Your task to perform on an android device: turn on improve location accuracy Image 0: 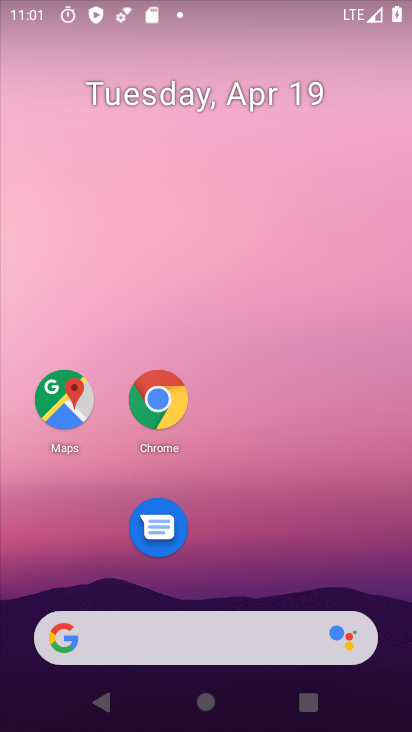
Step 0: click (284, 274)
Your task to perform on an android device: turn on improve location accuracy Image 1: 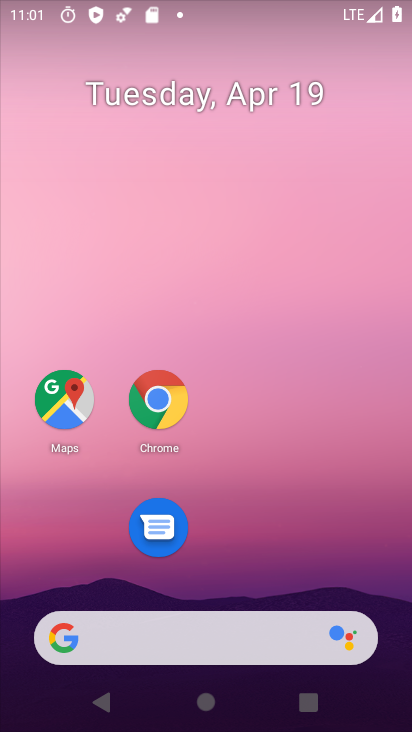
Step 1: drag from (255, 674) to (202, 243)
Your task to perform on an android device: turn on improve location accuracy Image 2: 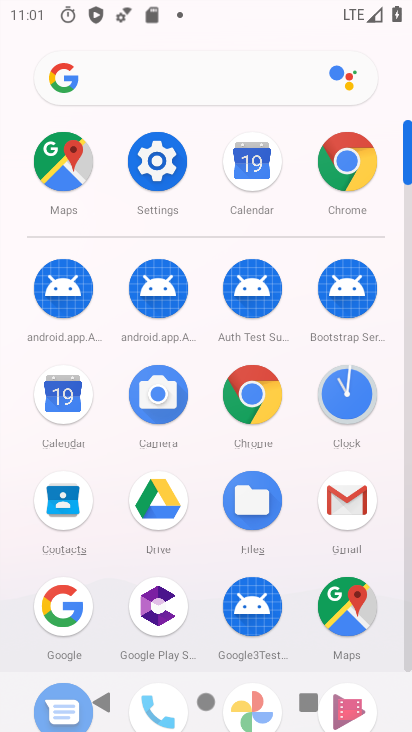
Step 2: click (153, 159)
Your task to perform on an android device: turn on improve location accuracy Image 3: 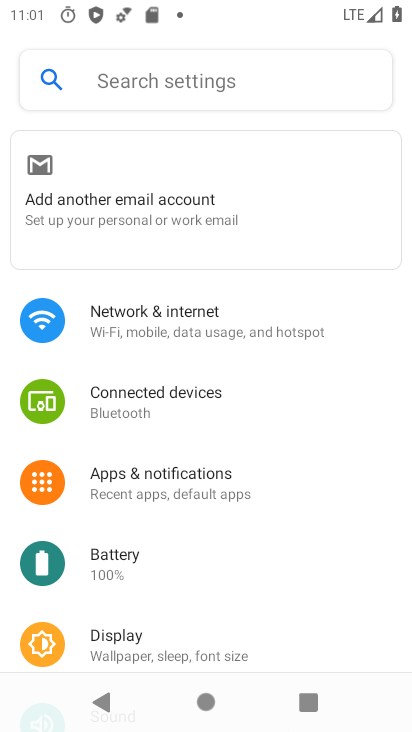
Step 3: click (147, 72)
Your task to perform on an android device: turn on improve location accuracy Image 4: 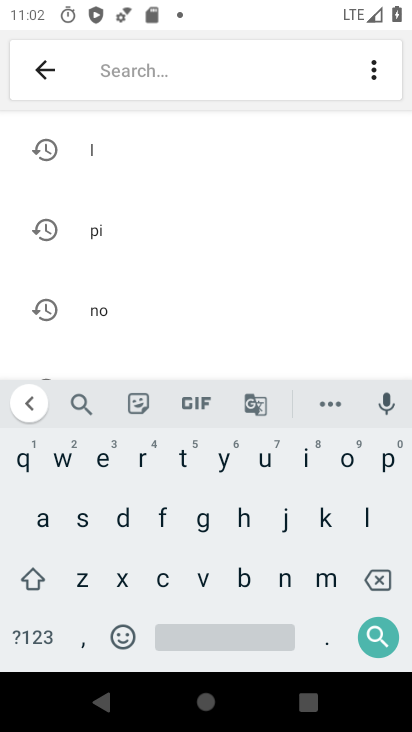
Step 4: click (98, 151)
Your task to perform on an android device: turn on improve location accuracy Image 5: 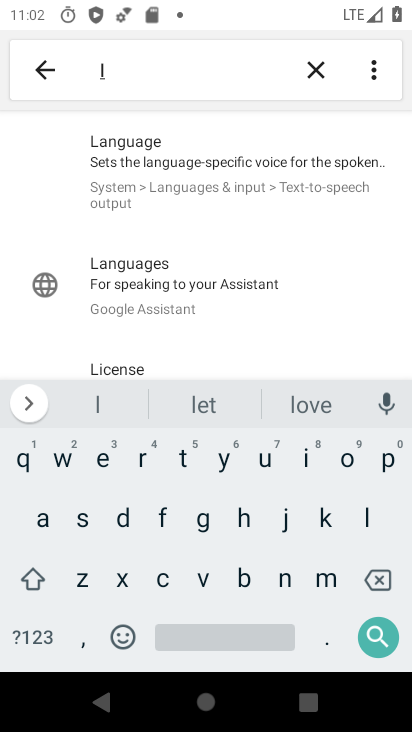
Step 5: drag from (136, 275) to (143, 74)
Your task to perform on an android device: turn on improve location accuracy Image 6: 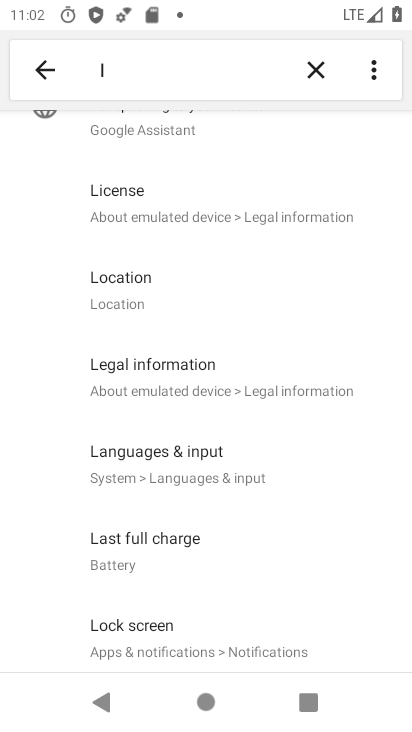
Step 6: click (139, 285)
Your task to perform on an android device: turn on improve location accuracy Image 7: 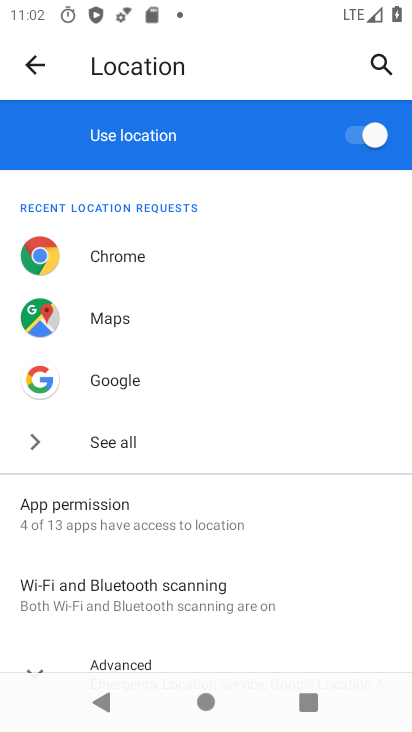
Step 7: drag from (141, 504) to (164, 376)
Your task to perform on an android device: turn on improve location accuracy Image 8: 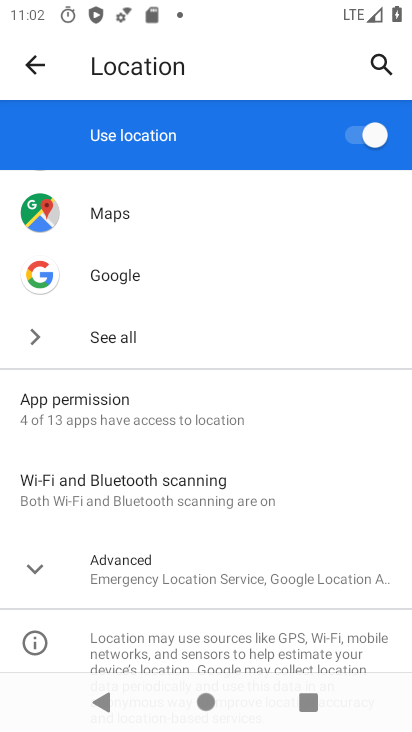
Step 8: click (110, 563)
Your task to perform on an android device: turn on improve location accuracy Image 9: 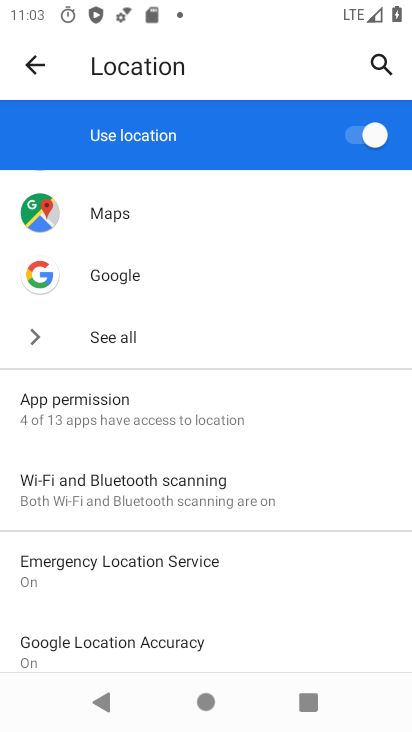
Step 9: click (107, 632)
Your task to perform on an android device: turn on improve location accuracy Image 10: 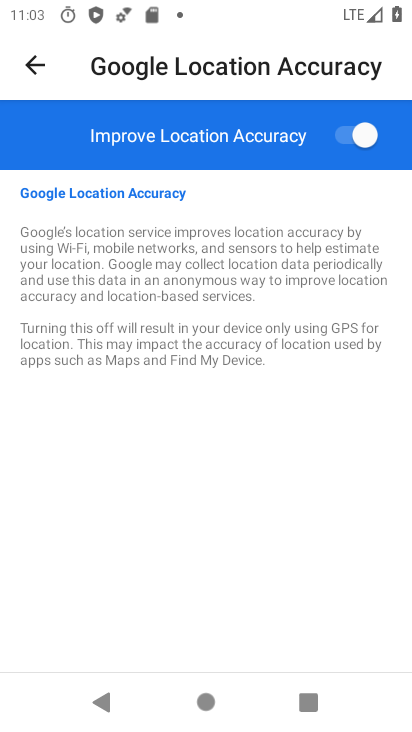
Step 10: task complete